Your task to perform on an android device: Is it going to rain this weekend? Image 0: 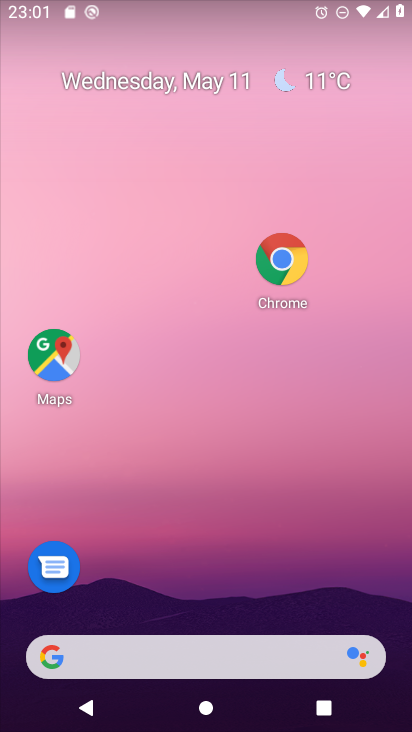
Step 0: click (303, 82)
Your task to perform on an android device: Is it going to rain this weekend? Image 1: 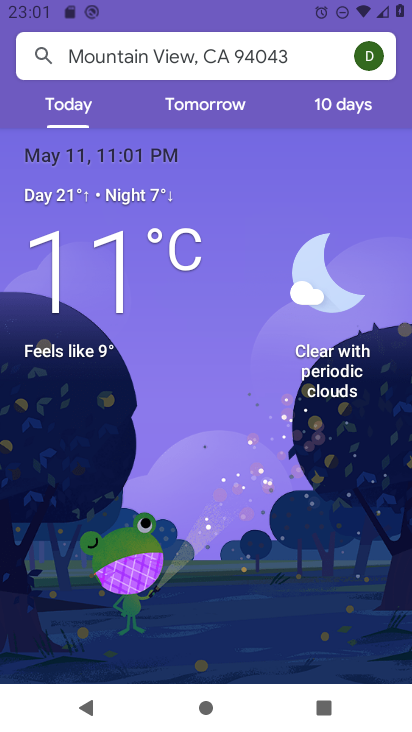
Step 1: click (334, 105)
Your task to perform on an android device: Is it going to rain this weekend? Image 2: 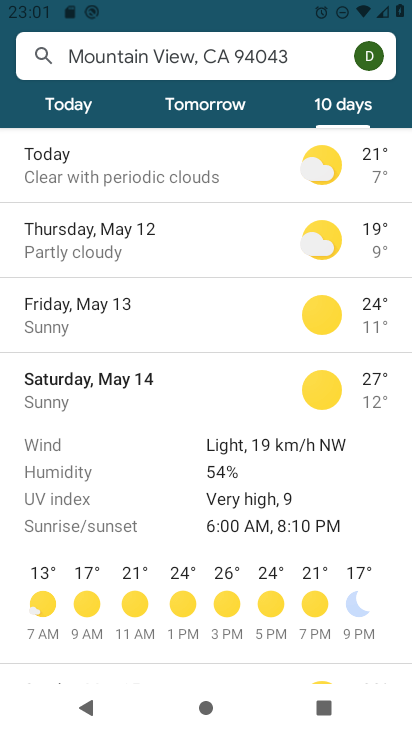
Step 2: task complete